Your task to perform on an android device: open app "The Home Depot" (install if not already installed) and enter user name: "taproot@icloud.com" and password: "executions" Image 0: 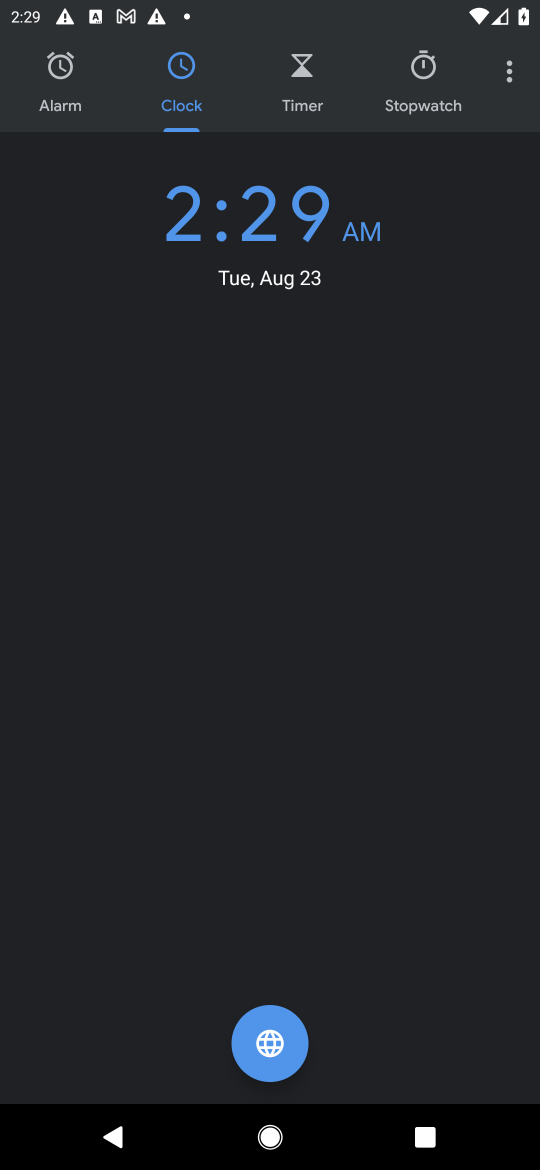
Step 0: press home button
Your task to perform on an android device: open app "The Home Depot" (install if not already installed) and enter user name: "taproot@icloud.com" and password: "executions" Image 1: 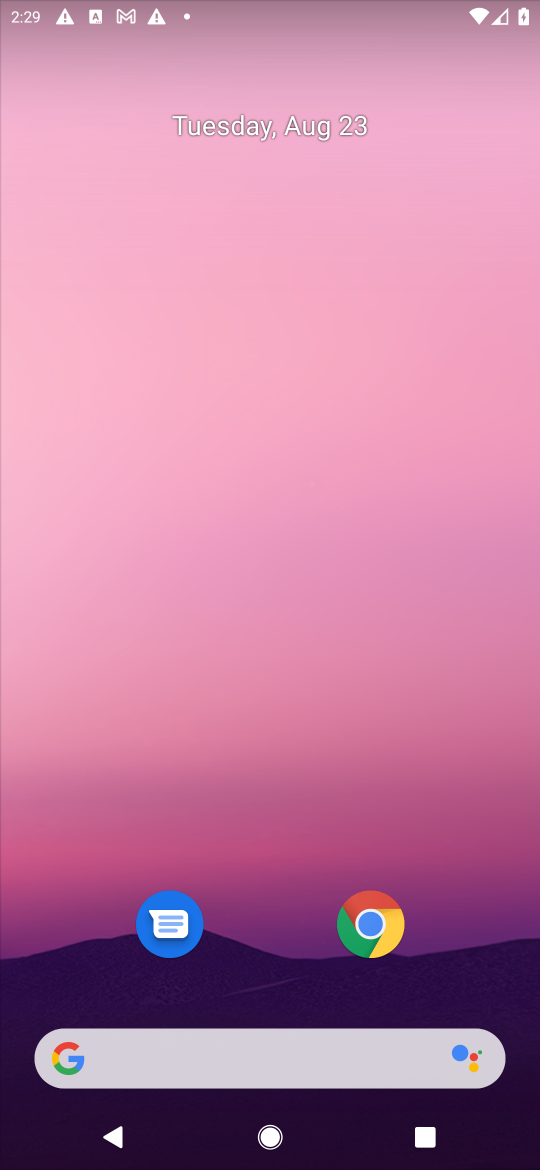
Step 1: drag from (470, 473) to (475, 93)
Your task to perform on an android device: open app "The Home Depot" (install if not already installed) and enter user name: "taproot@icloud.com" and password: "executions" Image 2: 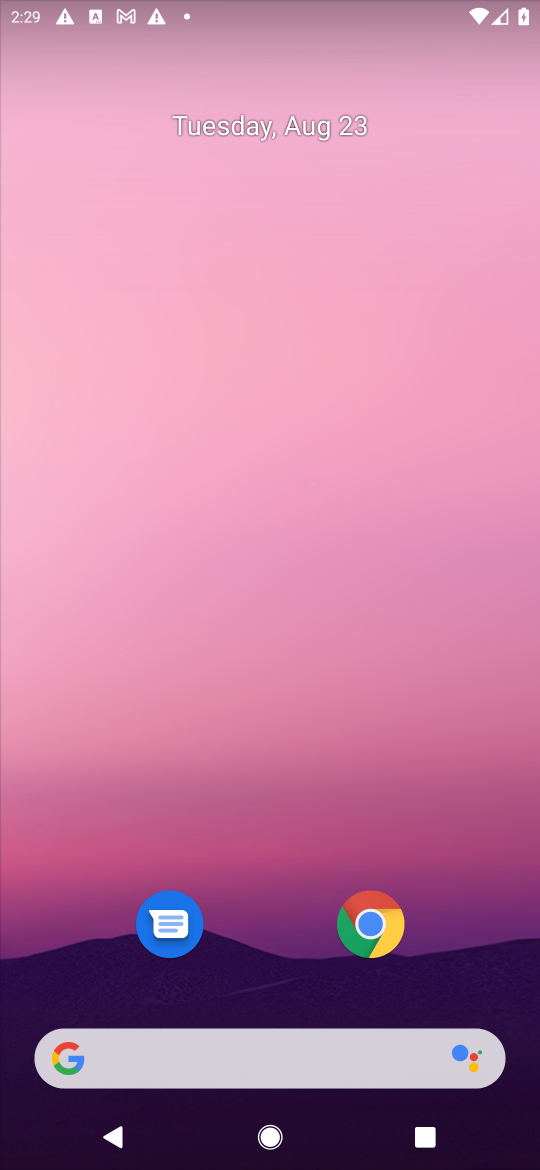
Step 2: drag from (457, 986) to (449, 111)
Your task to perform on an android device: open app "The Home Depot" (install if not already installed) and enter user name: "taproot@icloud.com" and password: "executions" Image 3: 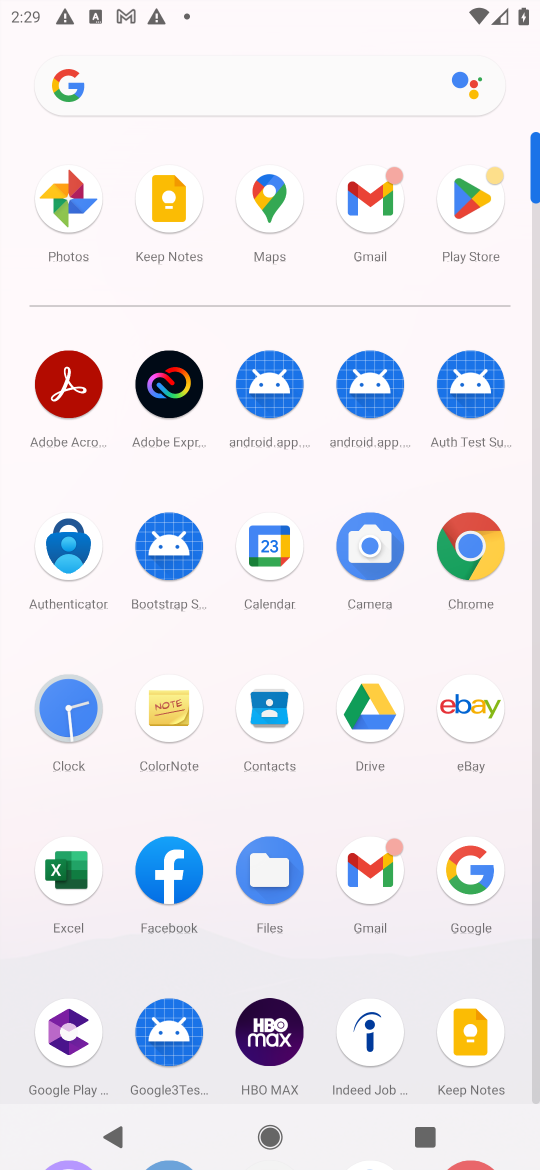
Step 3: click (471, 197)
Your task to perform on an android device: open app "The Home Depot" (install if not already installed) and enter user name: "taproot@icloud.com" and password: "executions" Image 4: 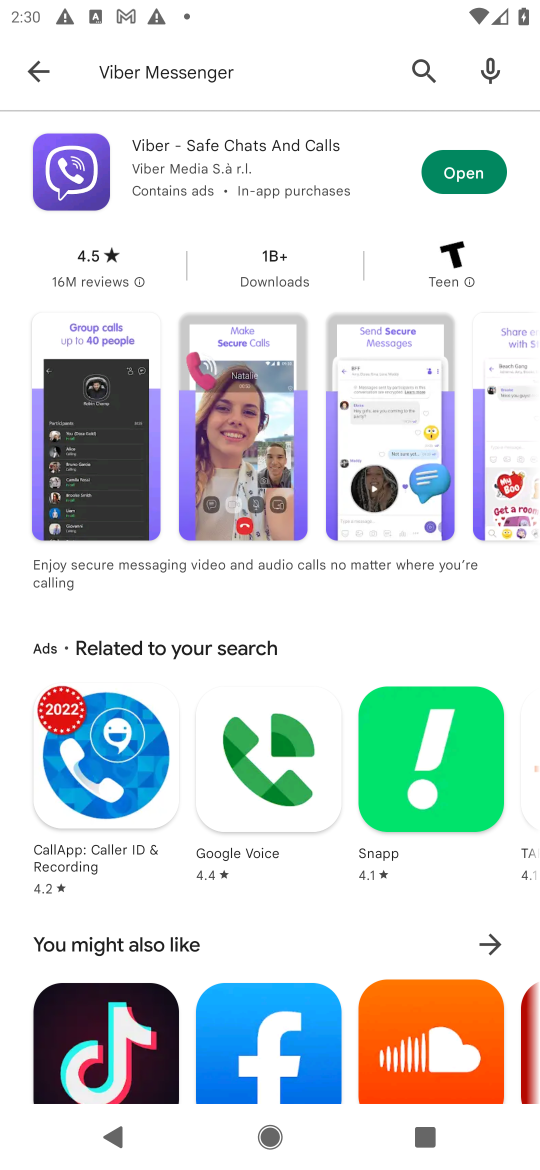
Step 4: press back button
Your task to perform on an android device: open app "The Home Depot" (install if not already installed) and enter user name: "taproot@icloud.com" and password: "executions" Image 5: 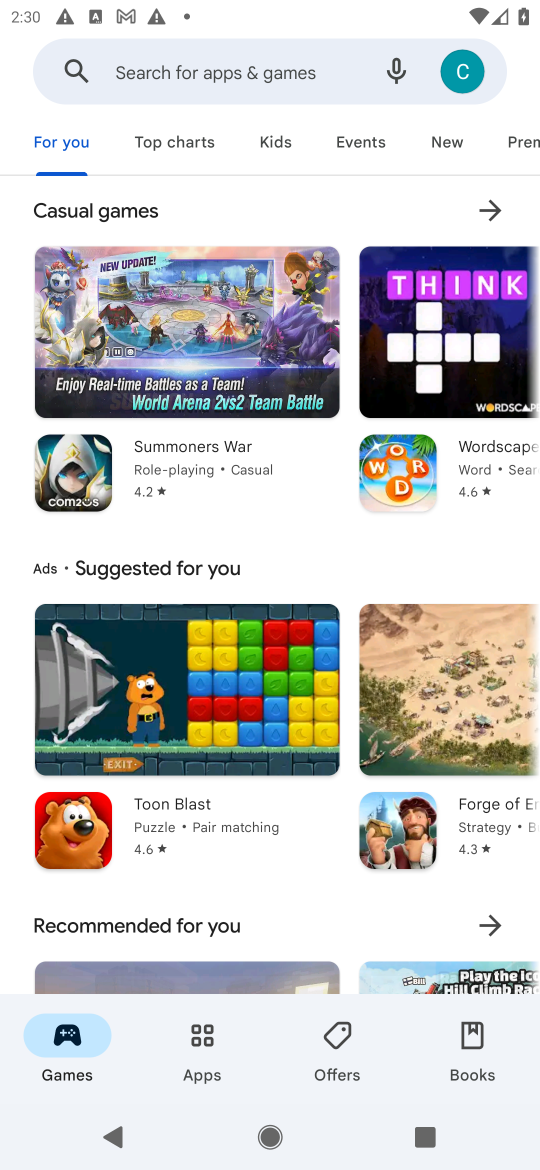
Step 5: click (239, 65)
Your task to perform on an android device: open app "The Home Depot" (install if not already installed) and enter user name: "taproot@icloud.com" and password: "executions" Image 6: 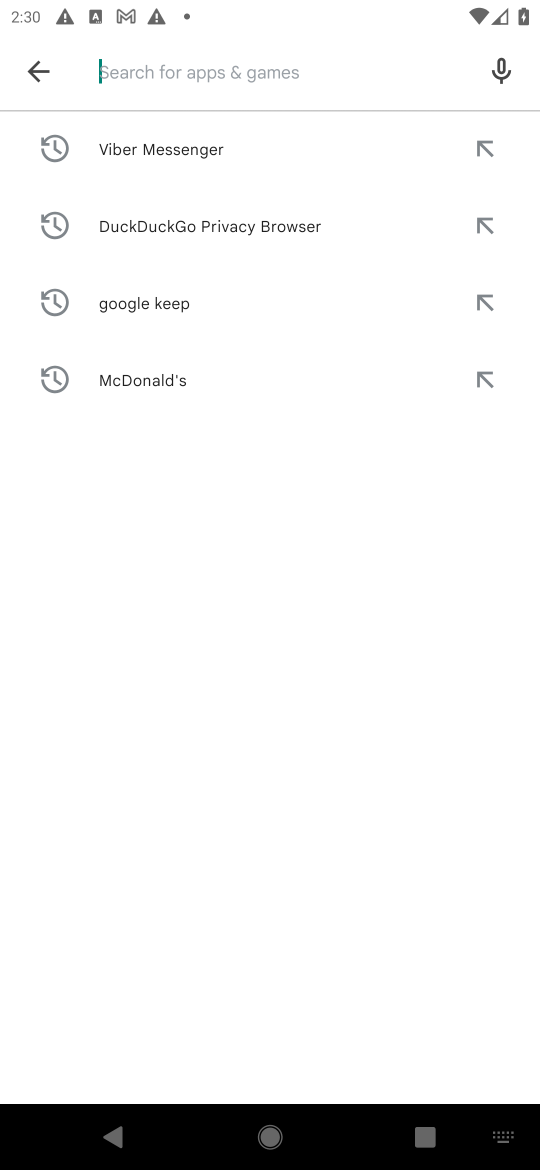
Step 6: type "The Home Depot"
Your task to perform on an android device: open app "The Home Depot" (install if not already installed) and enter user name: "taproot@icloud.com" and password: "executions" Image 7: 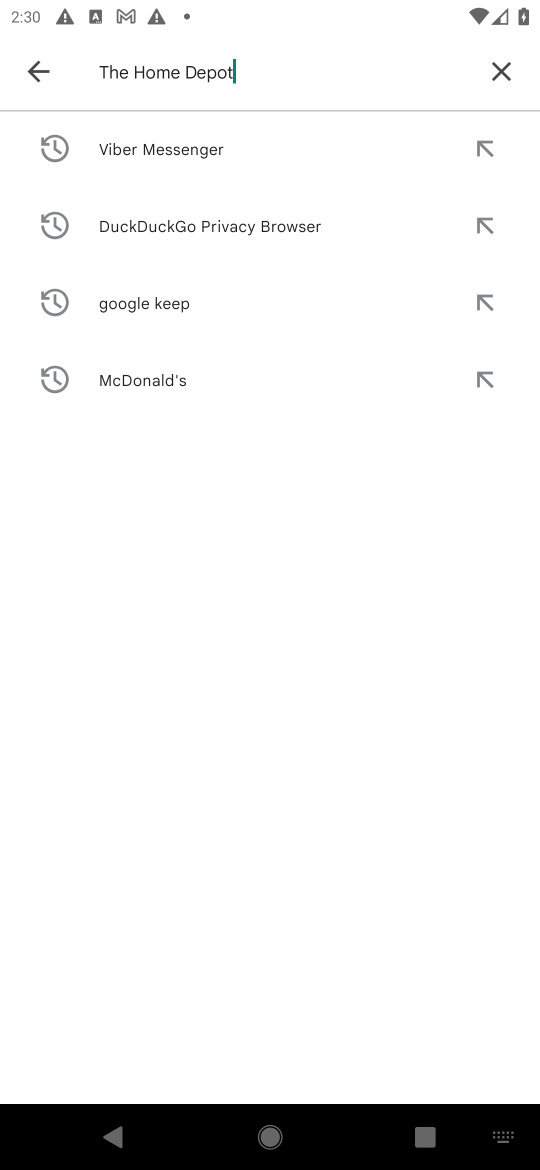
Step 7: press enter
Your task to perform on an android device: open app "The Home Depot" (install if not already installed) and enter user name: "taproot@icloud.com" and password: "executions" Image 8: 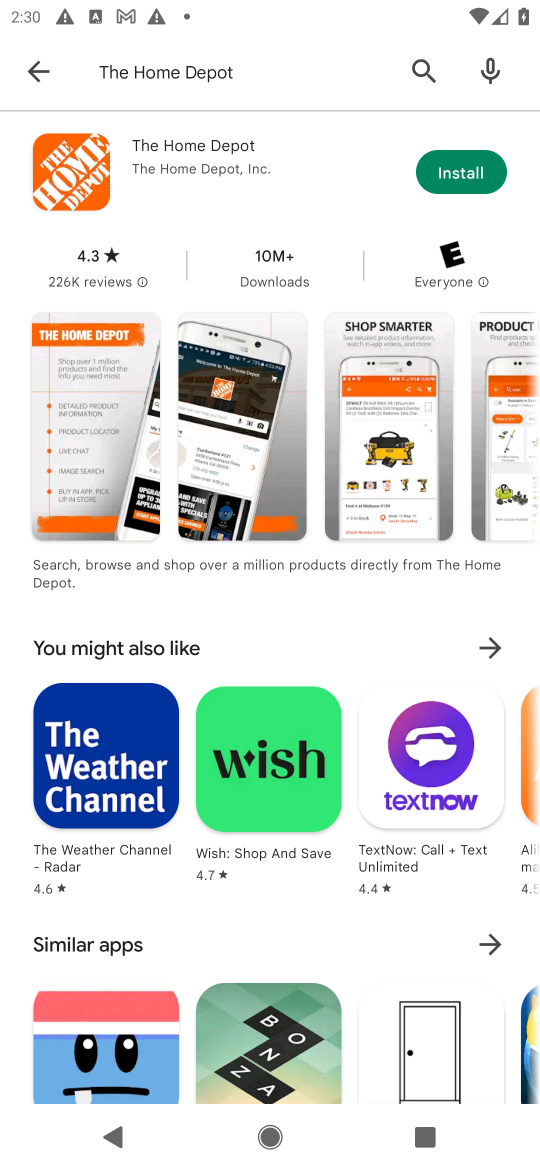
Step 8: click (448, 174)
Your task to perform on an android device: open app "The Home Depot" (install if not already installed) and enter user name: "taproot@icloud.com" and password: "executions" Image 9: 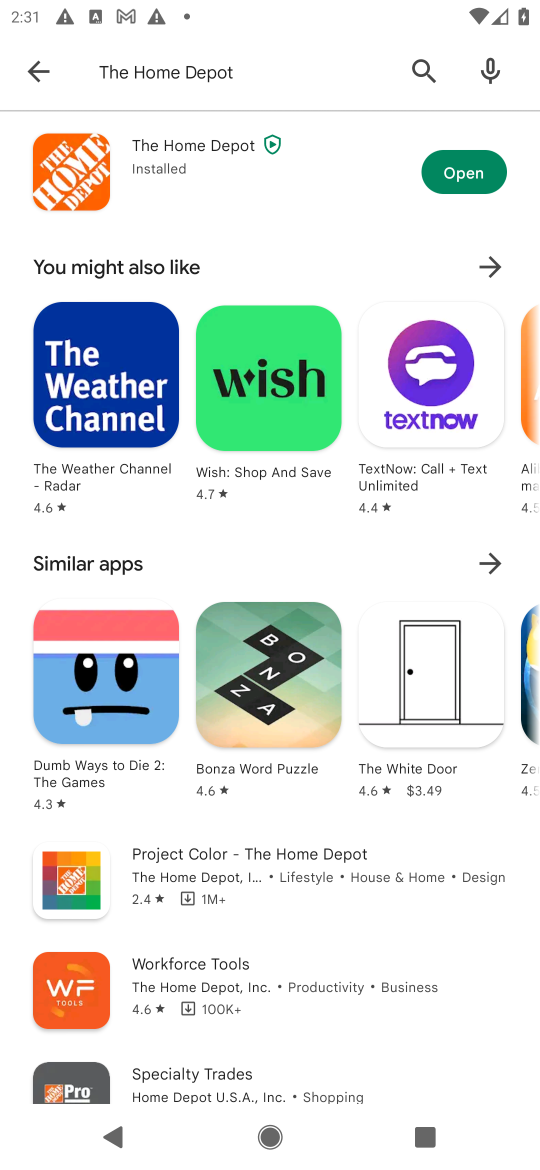
Step 9: click (472, 168)
Your task to perform on an android device: open app "The Home Depot" (install if not already installed) and enter user name: "taproot@icloud.com" and password: "executions" Image 10: 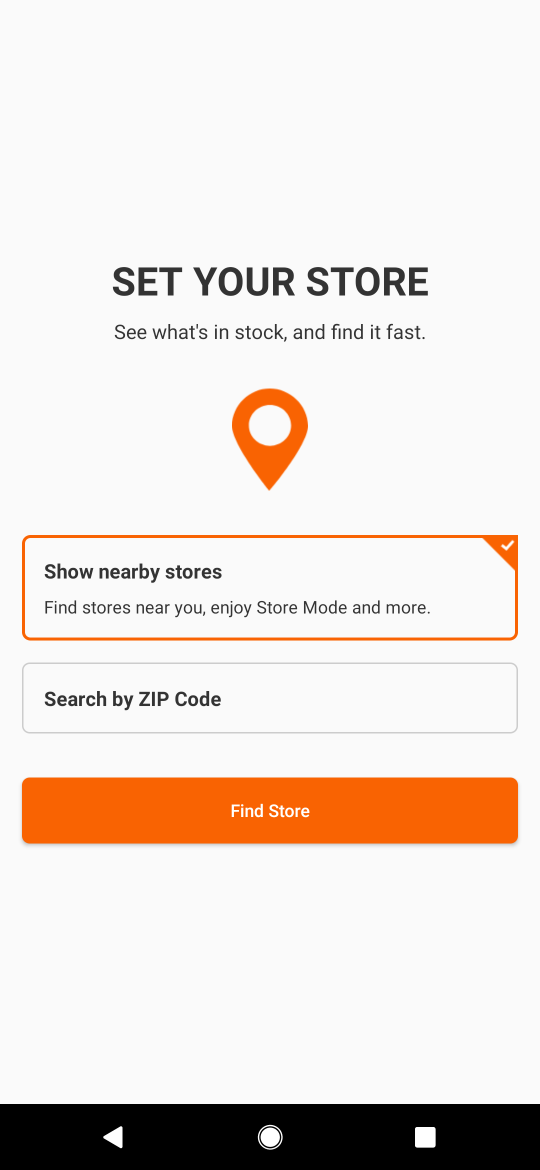
Step 10: click (297, 811)
Your task to perform on an android device: open app "The Home Depot" (install if not already installed) and enter user name: "taproot@icloud.com" and password: "executions" Image 11: 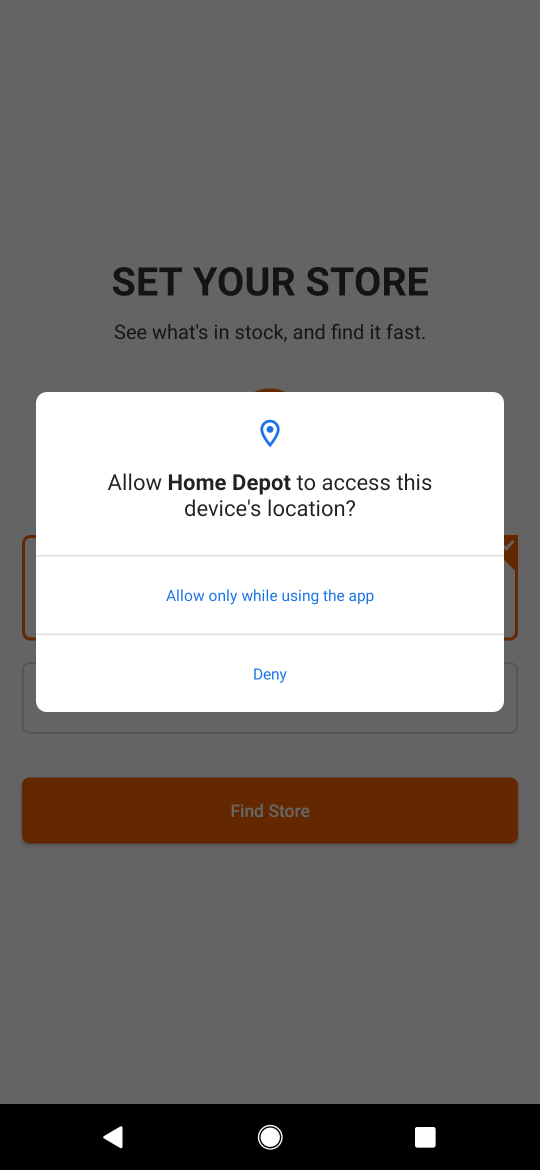
Step 11: click (400, 679)
Your task to perform on an android device: open app "The Home Depot" (install if not already installed) and enter user name: "taproot@icloud.com" and password: "executions" Image 12: 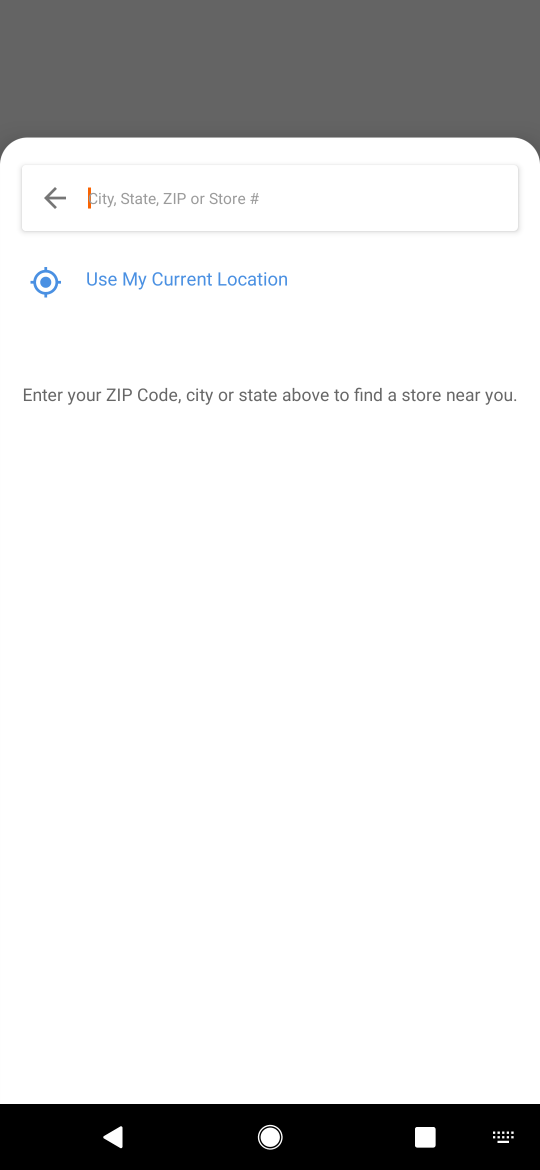
Step 12: task complete